Your task to perform on an android device: Go to Google Image 0: 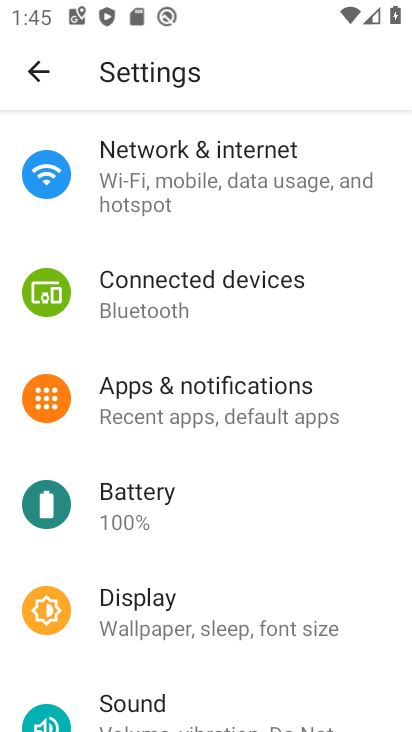
Step 0: press home button
Your task to perform on an android device: Go to Google Image 1: 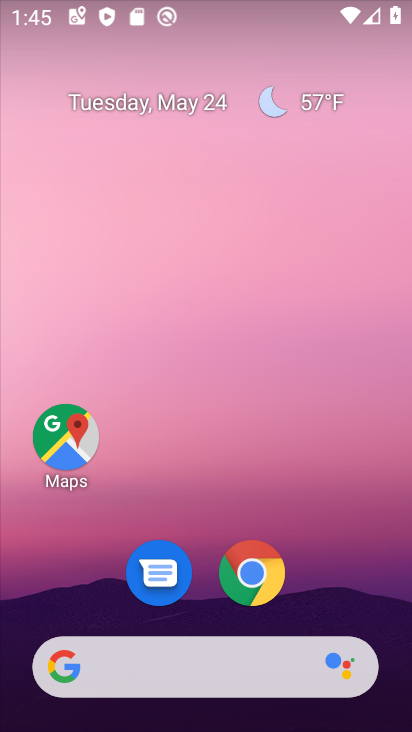
Step 1: drag from (326, 560) to (324, 137)
Your task to perform on an android device: Go to Google Image 2: 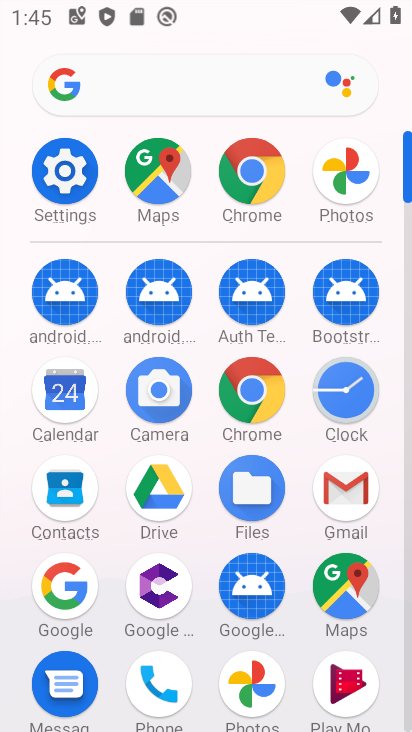
Step 2: click (52, 605)
Your task to perform on an android device: Go to Google Image 3: 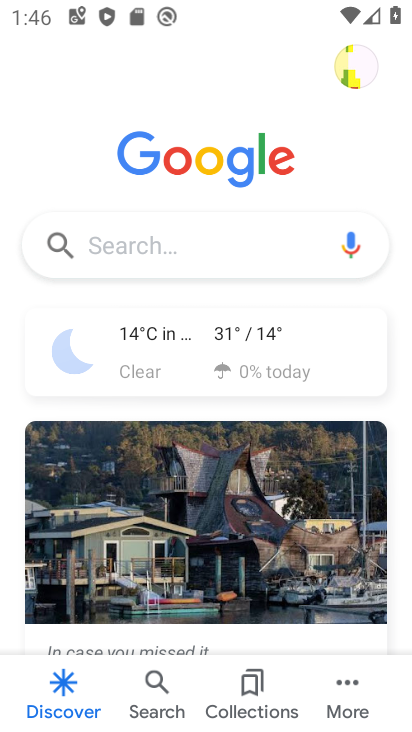
Step 3: task complete